Your task to perform on an android device: Search for seafood restaurants on Google Maps Image 0: 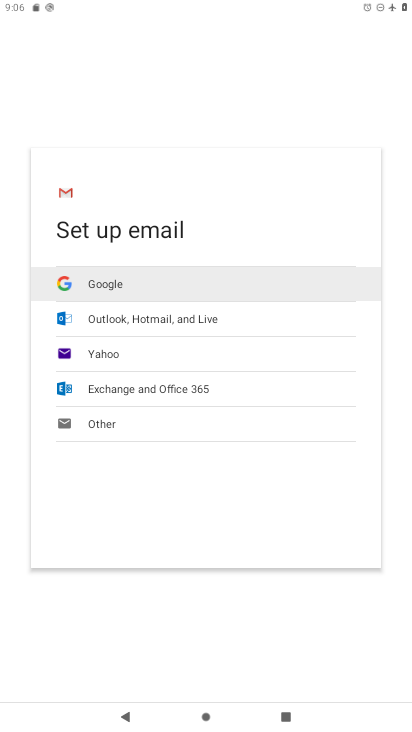
Step 0: press home button
Your task to perform on an android device: Search for seafood restaurants on Google Maps Image 1: 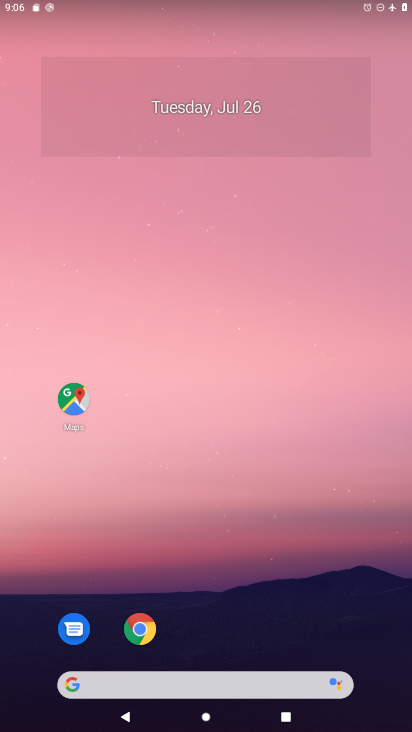
Step 1: drag from (195, 662) to (184, 78)
Your task to perform on an android device: Search for seafood restaurants on Google Maps Image 2: 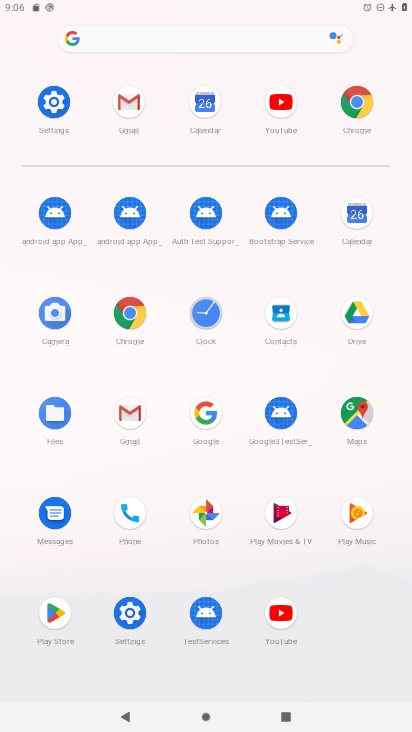
Step 2: click (358, 417)
Your task to perform on an android device: Search for seafood restaurants on Google Maps Image 3: 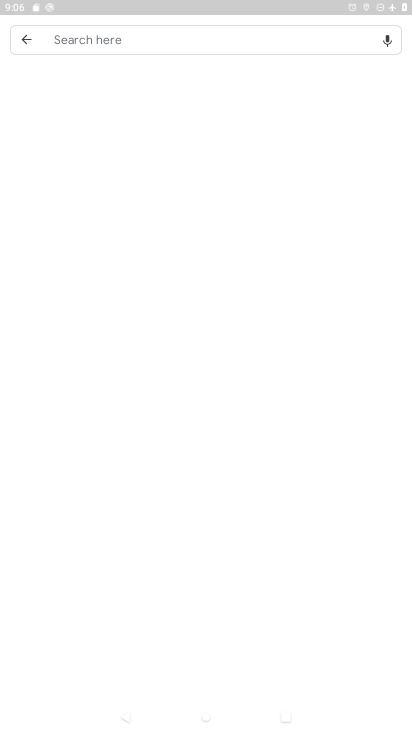
Step 3: type "seafood restaurants"
Your task to perform on an android device: Search for seafood restaurants on Google Maps Image 4: 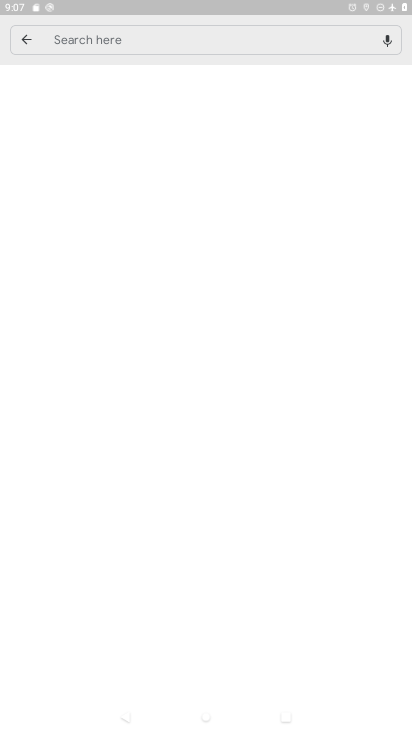
Step 4: type ""
Your task to perform on an android device: Search for seafood restaurants on Google Maps Image 5: 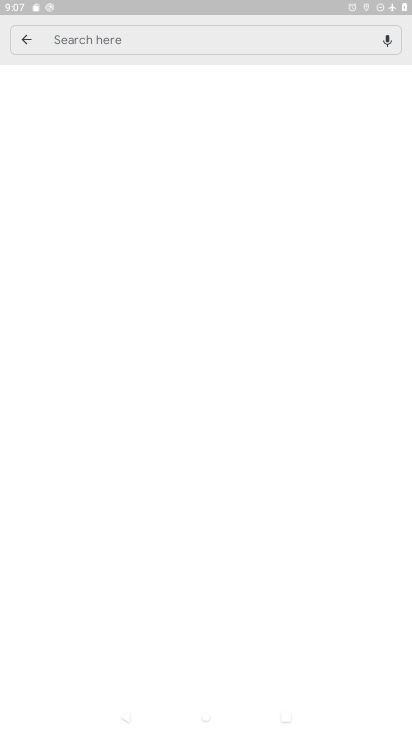
Step 5: click (76, 52)
Your task to perform on an android device: Search for seafood restaurants on Google Maps Image 6: 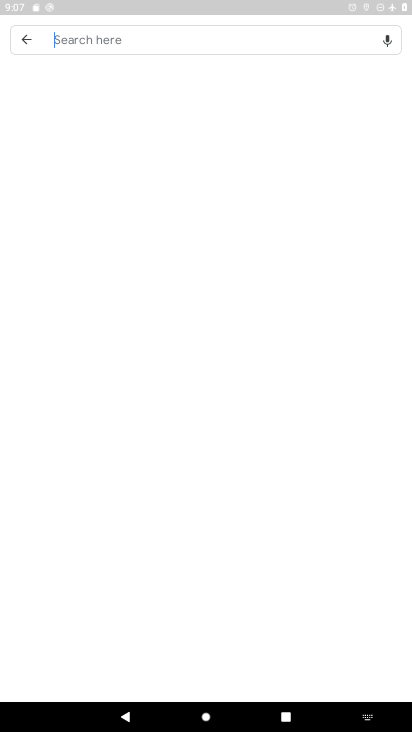
Step 6: type "seafood restaurants"
Your task to perform on an android device: Search for seafood restaurants on Google Maps Image 7: 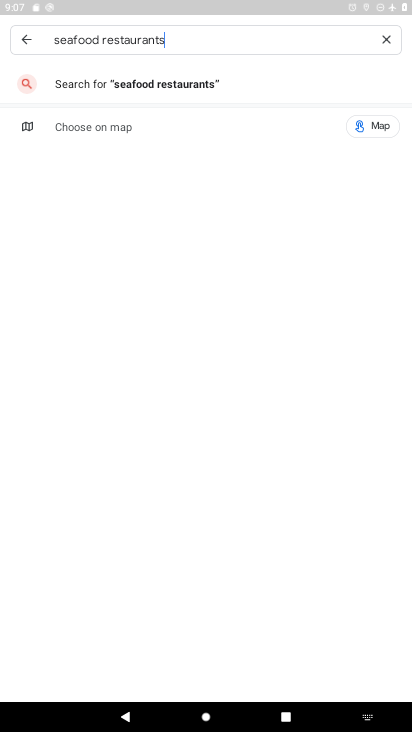
Step 7: type ""
Your task to perform on an android device: Search for seafood restaurants on Google Maps Image 8: 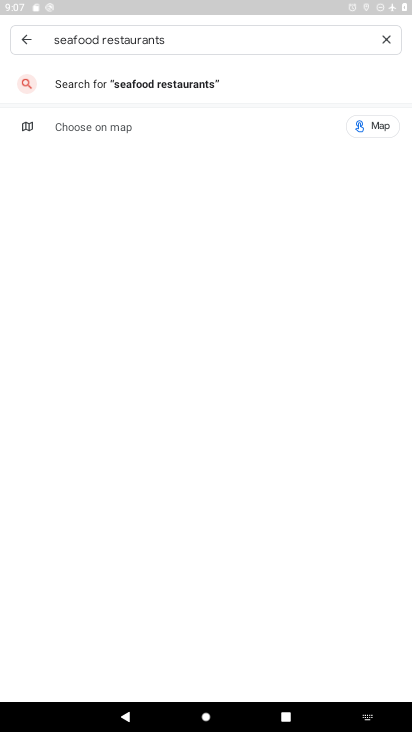
Step 8: click (81, 85)
Your task to perform on an android device: Search for seafood restaurants on Google Maps Image 9: 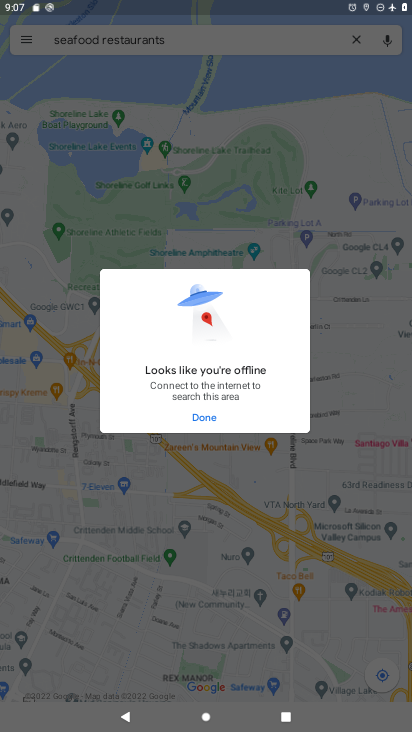
Step 9: task complete